Your task to perform on an android device: Add usb-c to usb-b to the cart on costco, then select checkout. Image 0: 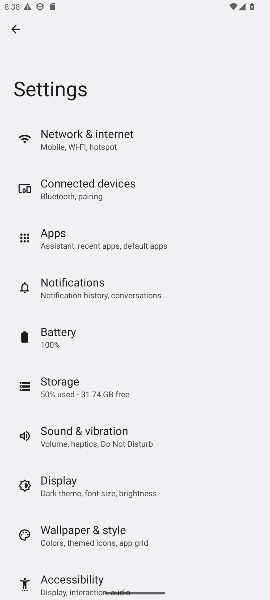
Step 0: press home button
Your task to perform on an android device: Add usb-c to usb-b to the cart on costco, then select checkout. Image 1: 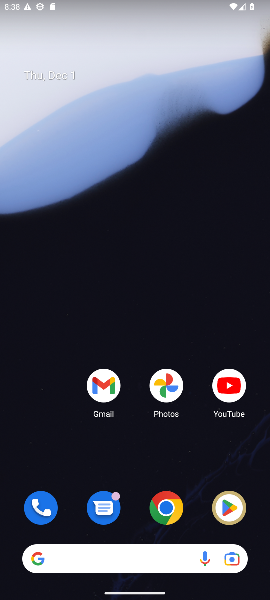
Step 1: click (164, 510)
Your task to perform on an android device: Add usb-c to usb-b to the cart on costco, then select checkout. Image 2: 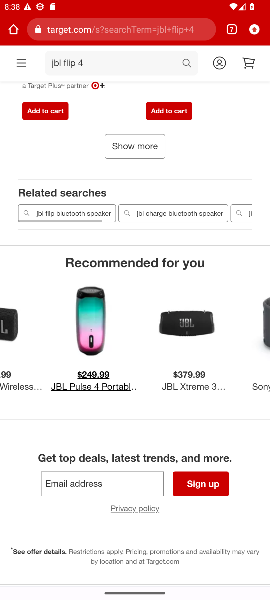
Step 2: click (227, 32)
Your task to perform on an android device: Add usb-c to usb-b to the cart on costco, then select checkout. Image 3: 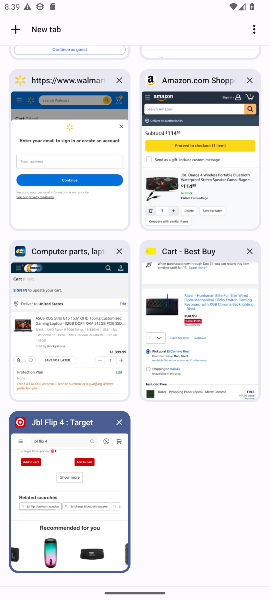
Step 3: drag from (148, 103) to (148, 328)
Your task to perform on an android device: Add usb-c to usb-b to the cart on costco, then select checkout. Image 4: 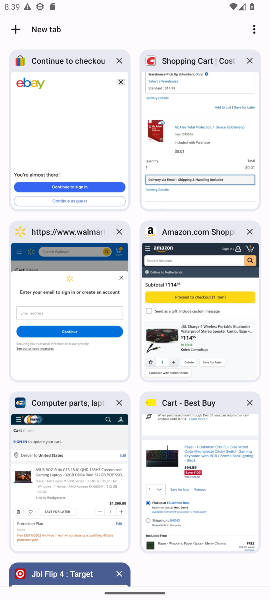
Step 4: click (176, 198)
Your task to perform on an android device: Add usb-c to usb-b to the cart on costco, then select checkout. Image 5: 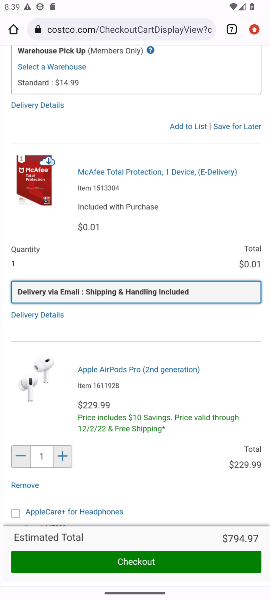
Step 5: drag from (194, 119) to (187, 409)
Your task to perform on an android device: Add usb-c to usb-b to the cart on costco, then select checkout. Image 6: 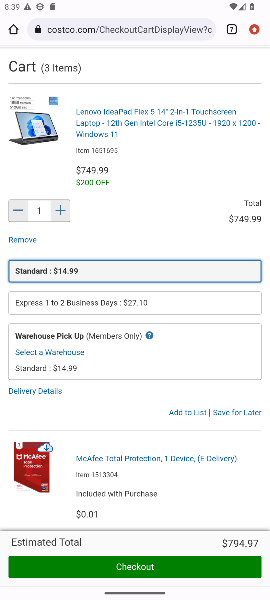
Step 6: drag from (199, 135) to (193, 293)
Your task to perform on an android device: Add usb-c to usb-b to the cart on costco, then select checkout. Image 7: 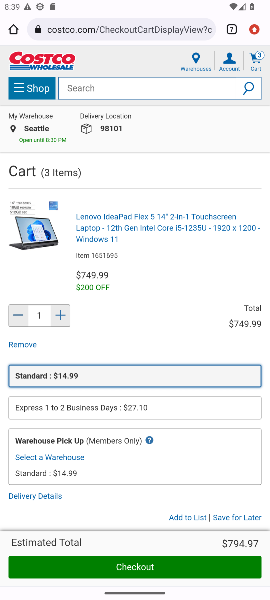
Step 7: click (98, 83)
Your task to perform on an android device: Add usb-c to usb-b to the cart on costco, then select checkout. Image 8: 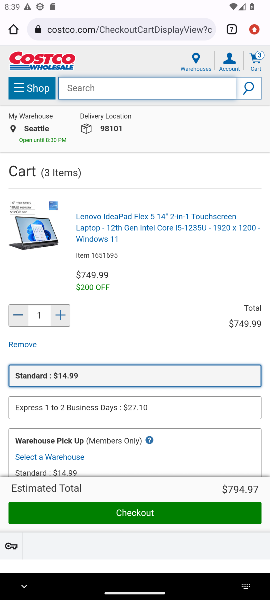
Step 8: type "usb-c to usb-b"
Your task to perform on an android device: Add usb-c to usb-b to the cart on costco, then select checkout. Image 9: 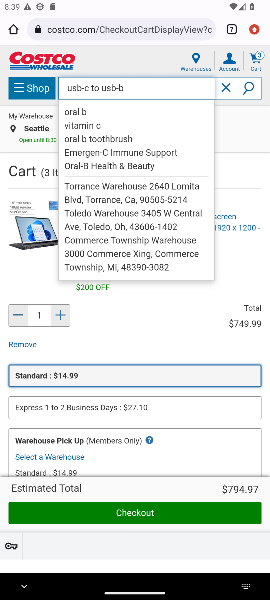
Step 9: click (247, 85)
Your task to perform on an android device: Add usb-c to usb-b to the cart on costco, then select checkout. Image 10: 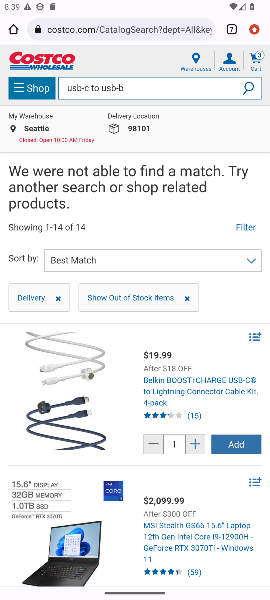
Step 10: click (238, 447)
Your task to perform on an android device: Add usb-c to usb-b to the cart on costco, then select checkout. Image 11: 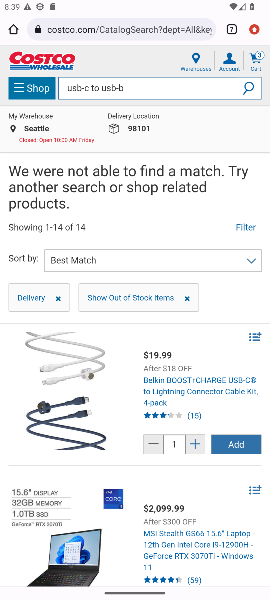
Step 11: click (257, 56)
Your task to perform on an android device: Add usb-c to usb-b to the cart on costco, then select checkout. Image 12: 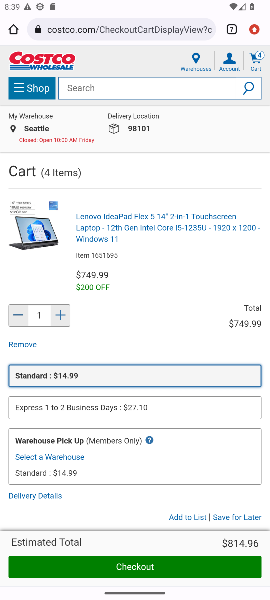
Step 12: click (109, 565)
Your task to perform on an android device: Add usb-c to usb-b to the cart on costco, then select checkout. Image 13: 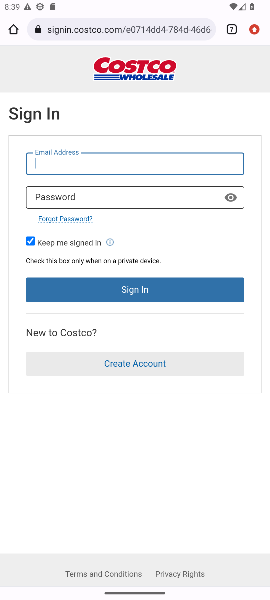
Step 13: task complete